Your task to perform on an android device: open a new tab in the chrome app Image 0: 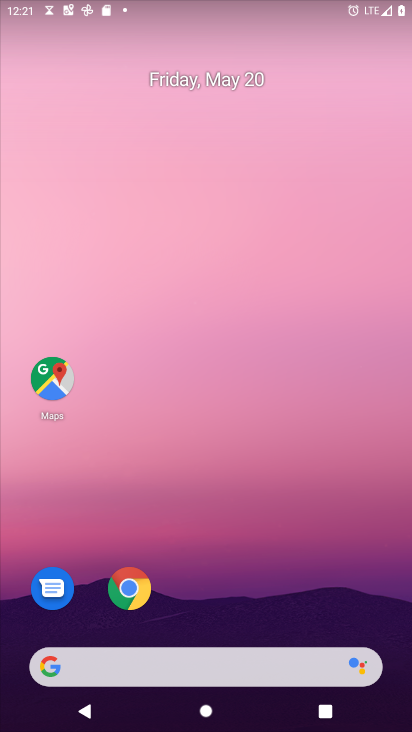
Step 0: click (127, 582)
Your task to perform on an android device: open a new tab in the chrome app Image 1: 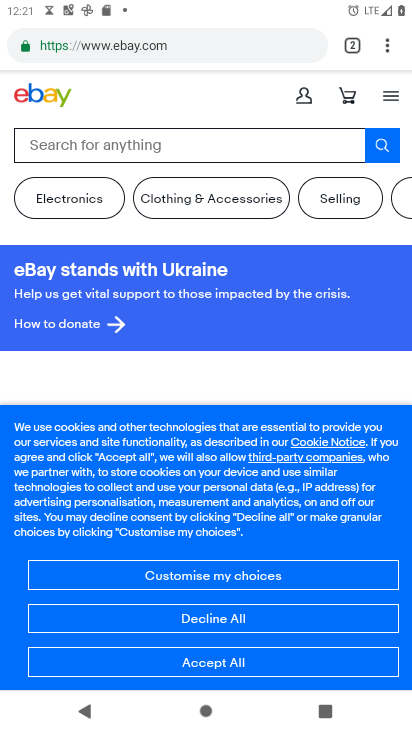
Step 1: click (391, 43)
Your task to perform on an android device: open a new tab in the chrome app Image 2: 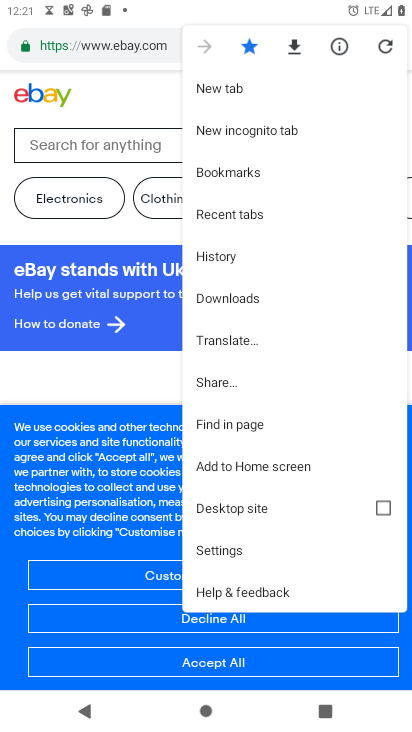
Step 2: click (266, 92)
Your task to perform on an android device: open a new tab in the chrome app Image 3: 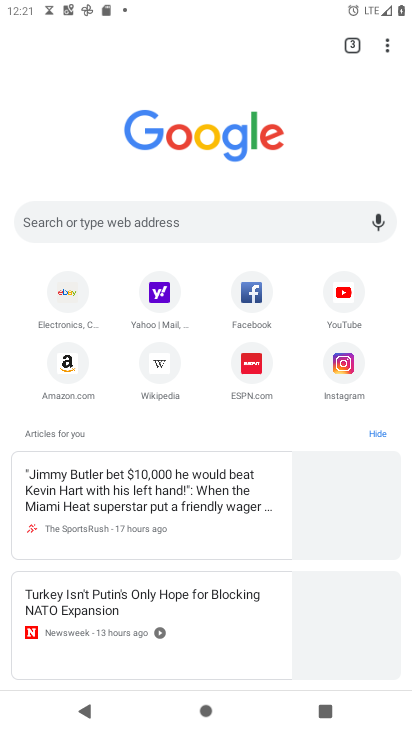
Step 3: task complete